Your task to perform on an android device: Search for sushi restaurants on Maps Image 0: 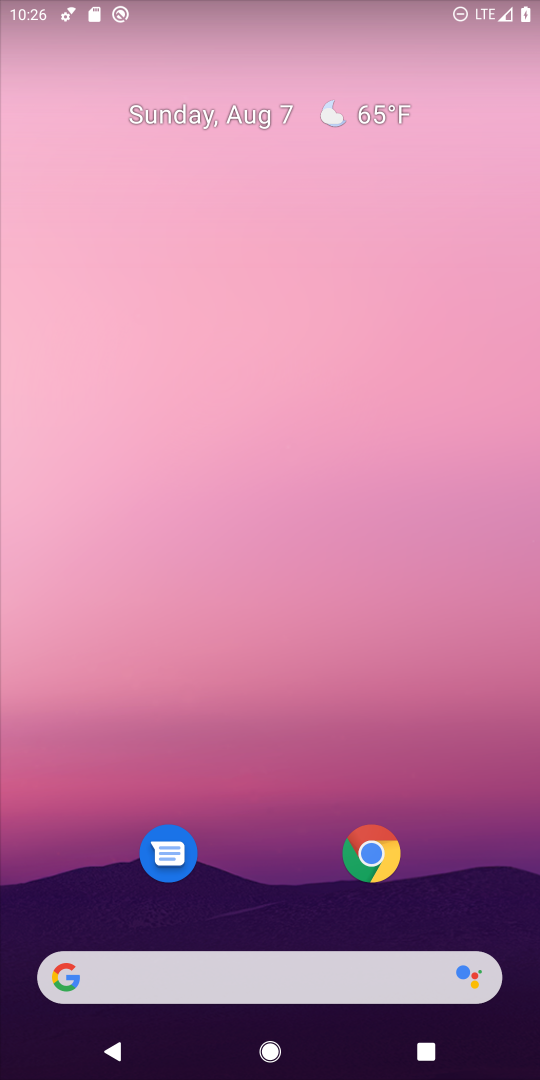
Step 0: drag from (247, 860) to (181, 144)
Your task to perform on an android device: Search for sushi restaurants on Maps Image 1: 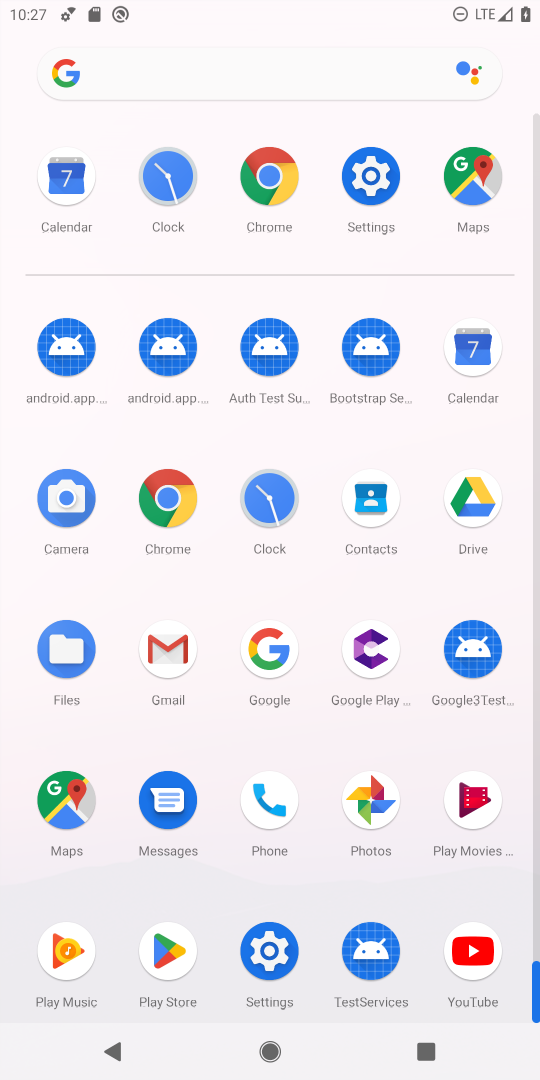
Step 1: click (57, 806)
Your task to perform on an android device: Search for sushi restaurants on Maps Image 2: 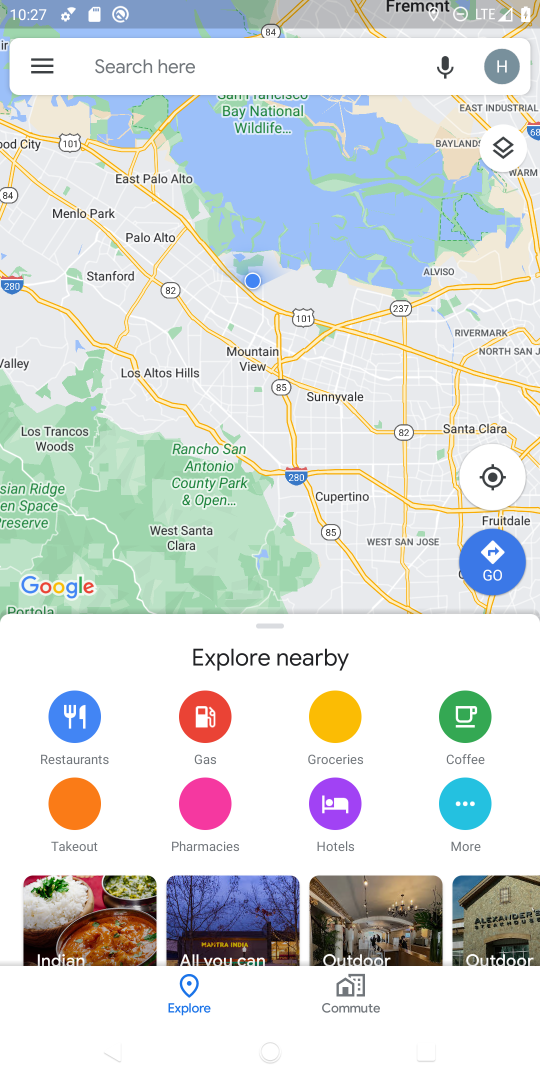
Step 2: click (246, 67)
Your task to perform on an android device: Search for sushi restaurants on Maps Image 3: 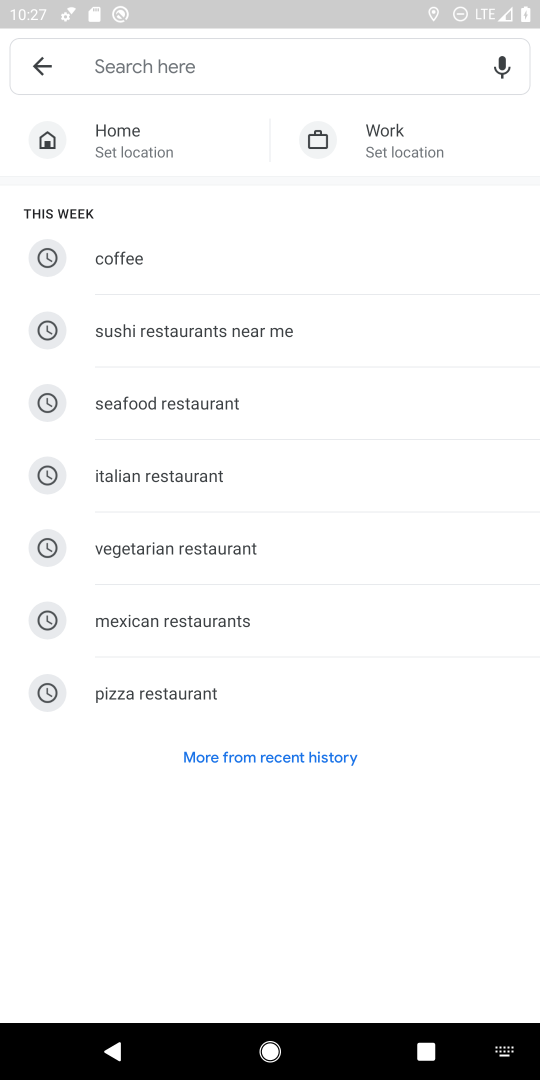
Step 3: click (201, 318)
Your task to perform on an android device: Search for sushi restaurants on Maps Image 4: 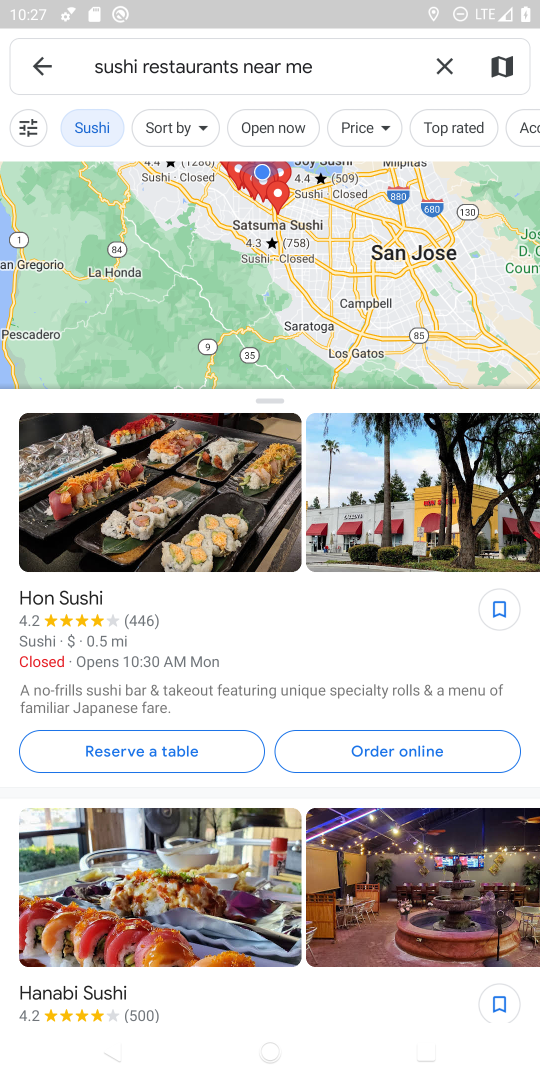
Step 4: task complete